Your task to perform on an android device: change notification settings in the gmail app Image 0: 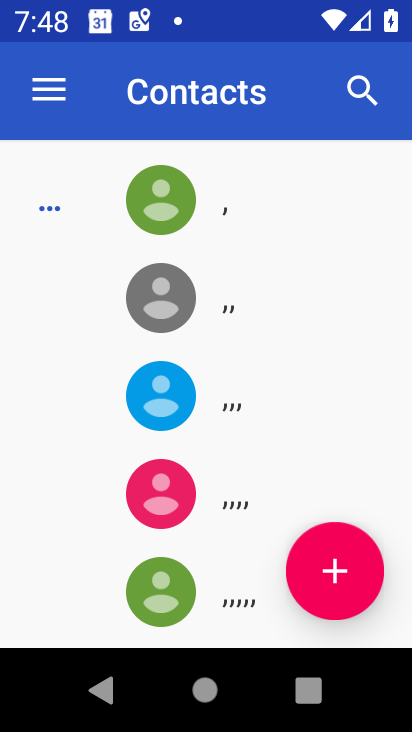
Step 0: press home button
Your task to perform on an android device: change notification settings in the gmail app Image 1: 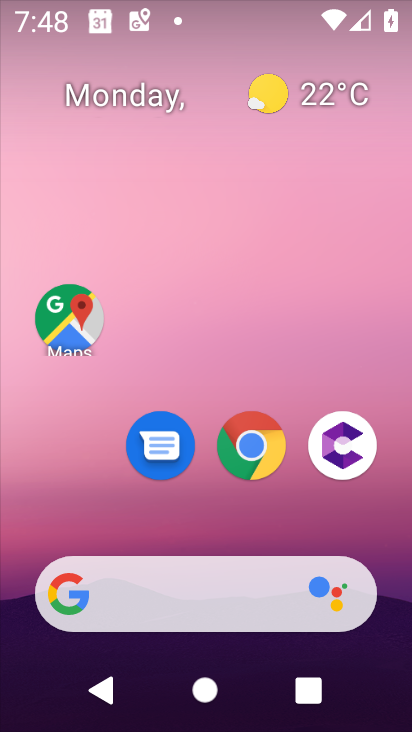
Step 1: drag from (244, 343) to (204, 36)
Your task to perform on an android device: change notification settings in the gmail app Image 2: 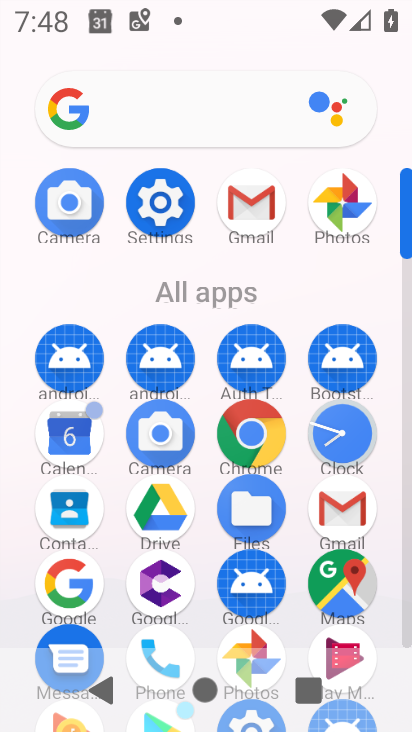
Step 2: click (252, 192)
Your task to perform on an android device: change notification settings in the gmail app Image 3: 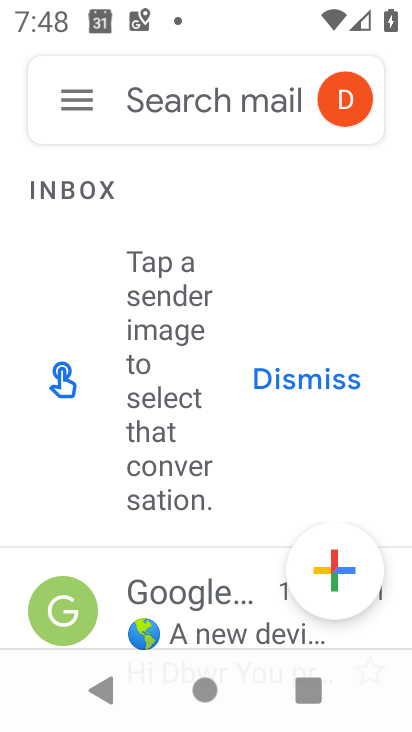
Step 3: click (80, 101)
Your task to perform on an android device: change notification settings in the gmail app Image 4: 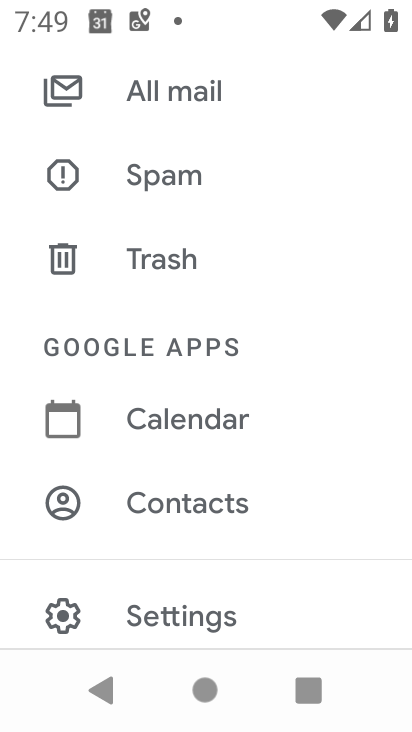
Step 4: click (80, 613)
Your task to perform on an android device: change notification settings in the gmail app Image 5: 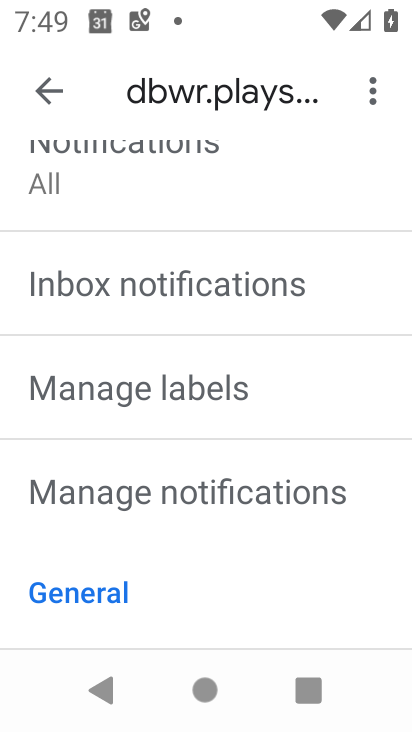
Step 5: click (248, 210)
Your task to perform on an android device: change notification settings in the gmail app Image 6: 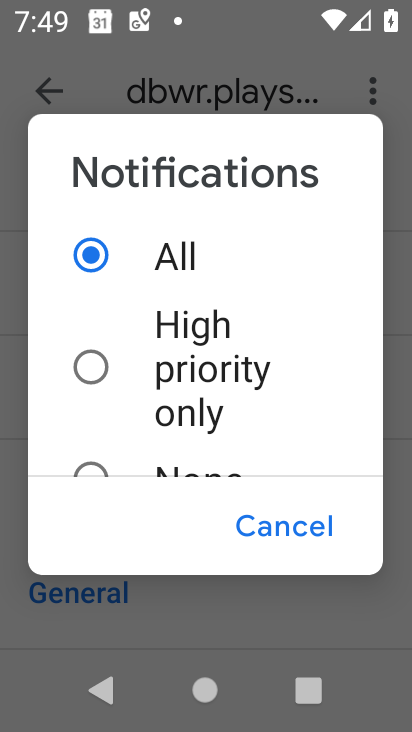
Step 6: click (234, 362)
Your task to perform on an android device: change notification settings in the gmail app Image 7: 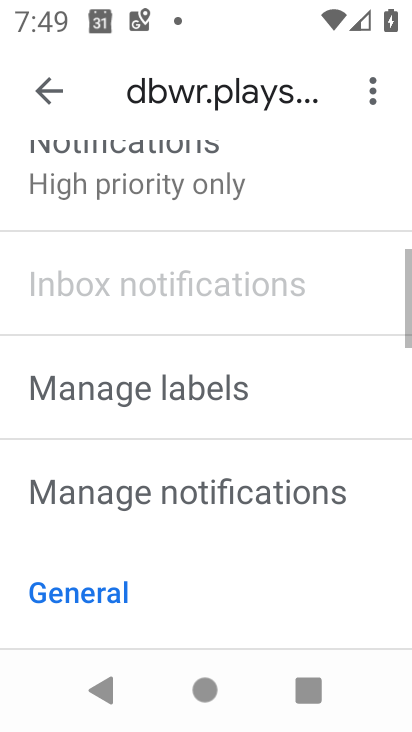
Step 7: task complete